Your task to perform on an android device: Open Google Maps Image 0: 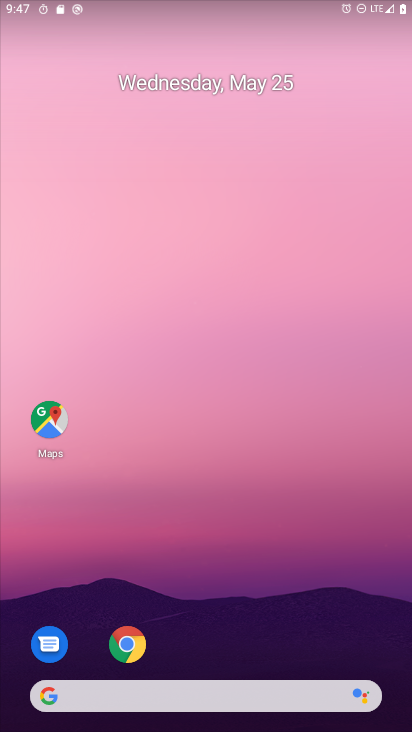
Step 0: drag from (334, 638) to (268, 106)
Your task to perform on an android device: Open Google Maps Image 1: 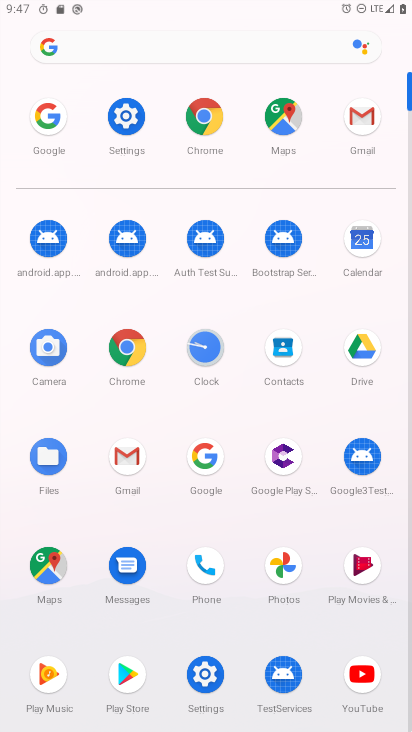
Step 1: click (49, 569)
Your task to perform on an android device: Open Google Maps Image 2: 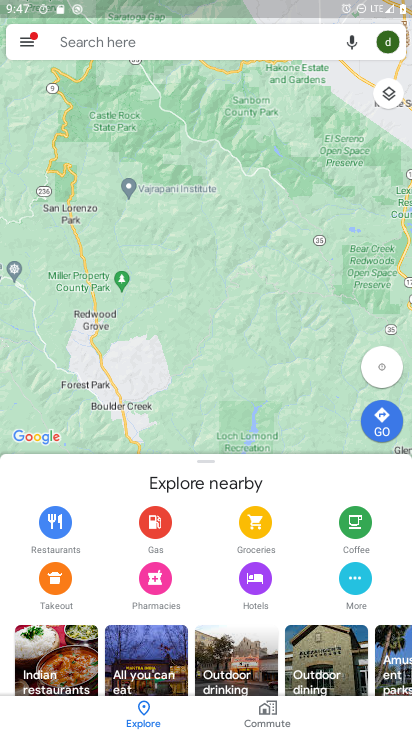
Step 2: task complete